Your task to perform on an android device: Search for vegetarian restaurants on Maps Image 0: 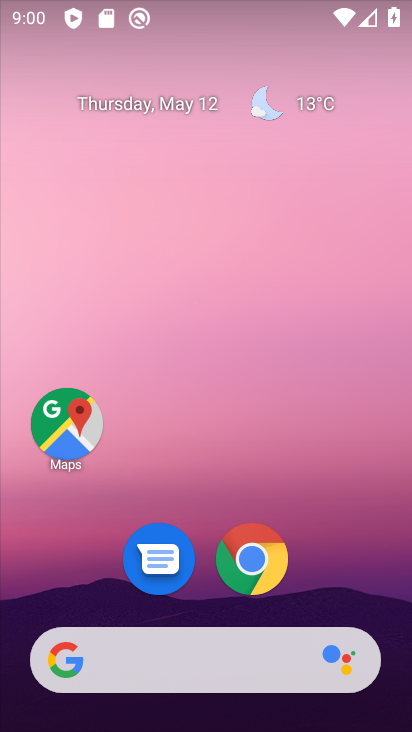
Step 0: click (83, 422)
Your task to perform on an android device: Search for vegetarian restaurants on Maps Image 1: 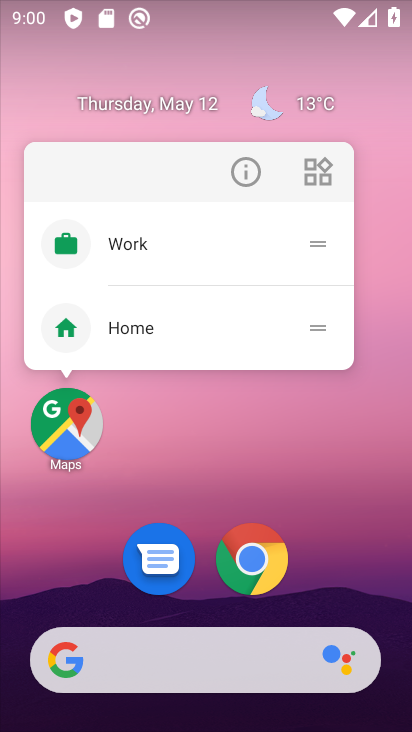
Step 1: click (72, 431)
Your task to perform on an android device: Search for vegetarian restaurants on Maps Image 2: 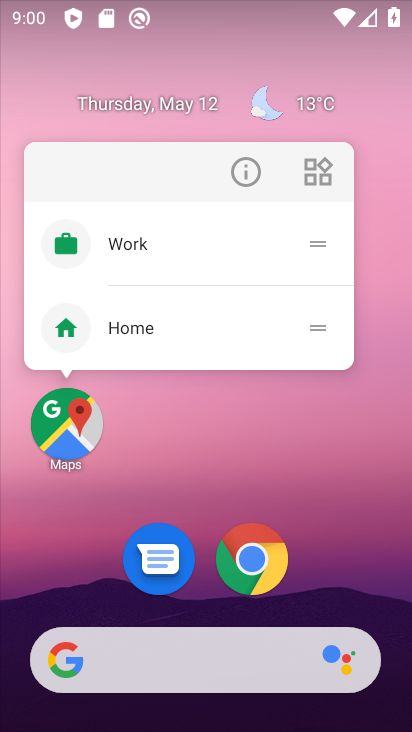
Step 2: click (63, 441)
Your task to perform on an android device: Search for vegetarian restaurants on Maps Image 3: 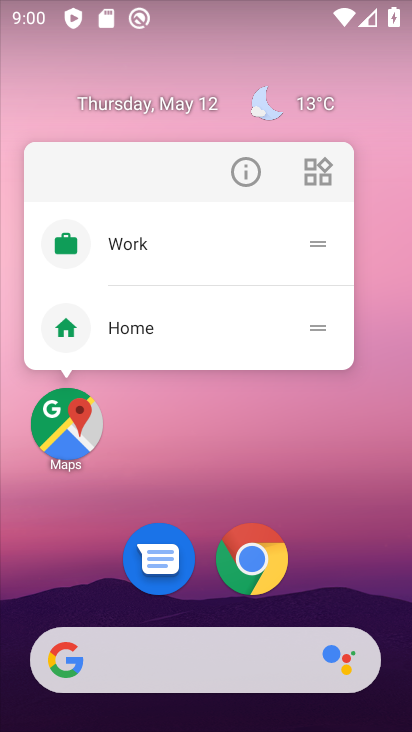
Step 3: click (55, 429)
Your task to perform on an android device: Search for vegetarian restaurants on Maps Image 4: 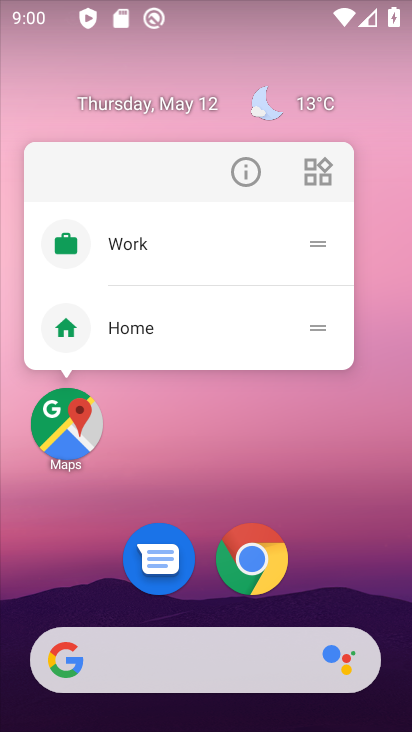
Step 4: click (60, 418)
Your task to perform on an android device: Search for vegetarian restaurants on Maps Image 5: 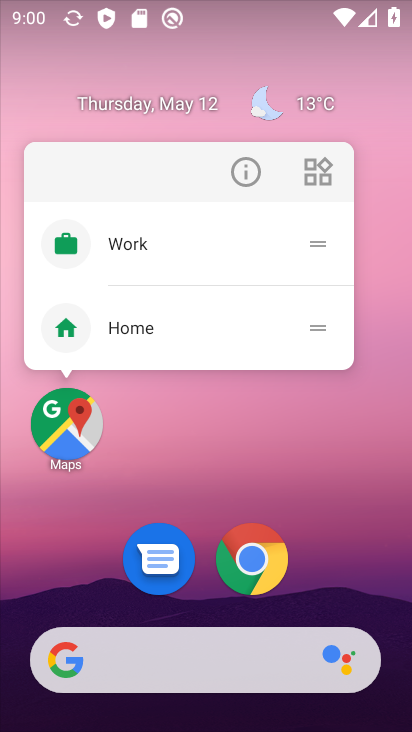
Step 5: click (66, 470)
Your task to perform on an android device: Search for vegetarian restaurants on Maps Image 6: 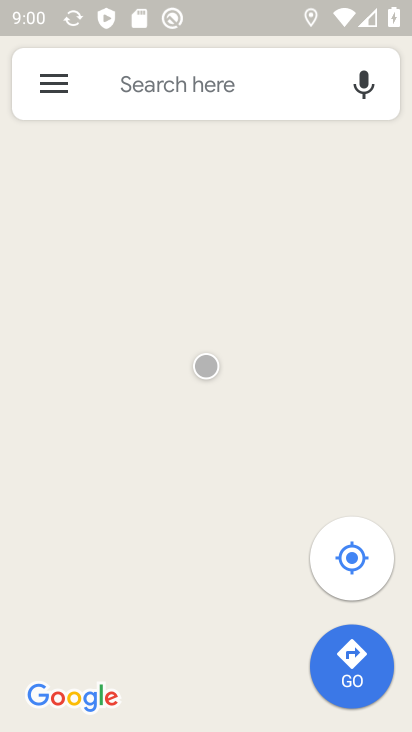
Step 6: click (237, 100)
Your task to perform on an android device: Search for vegetarian restaurants on Maps Image 7: 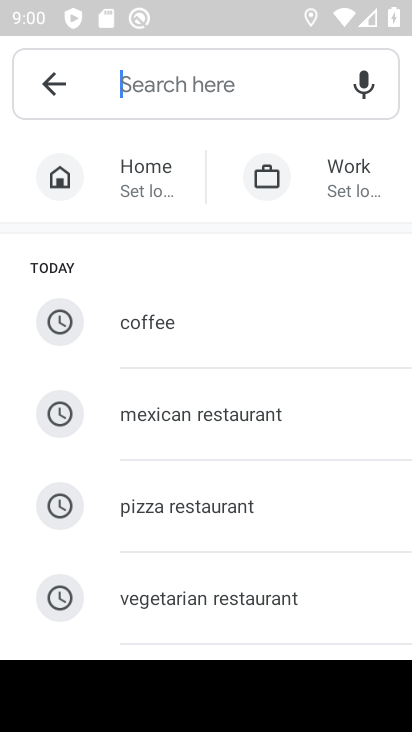
Step 7: type "vegetarian restaurants"
Your task to perform on an android device: Search for vegetarian restaurants on Maps Image 8: 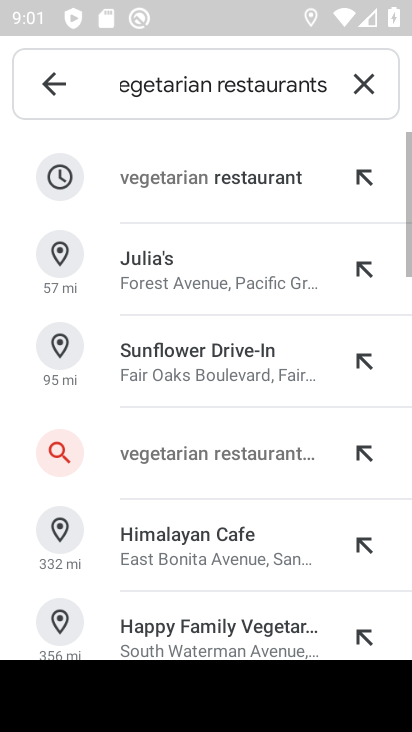
Step 8: click (230, 188)
Your task to perform on an android device: Search for vegetarian restaurants on Maps Image 9: 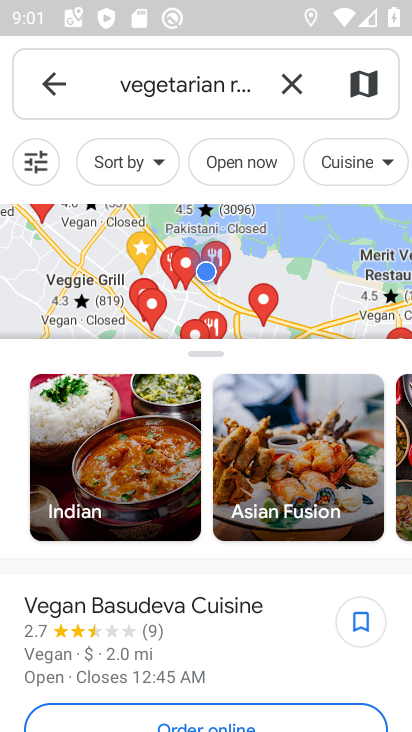
Step 9: task complete